Your task to perform on an android device: Open Reddit.com Image 0: 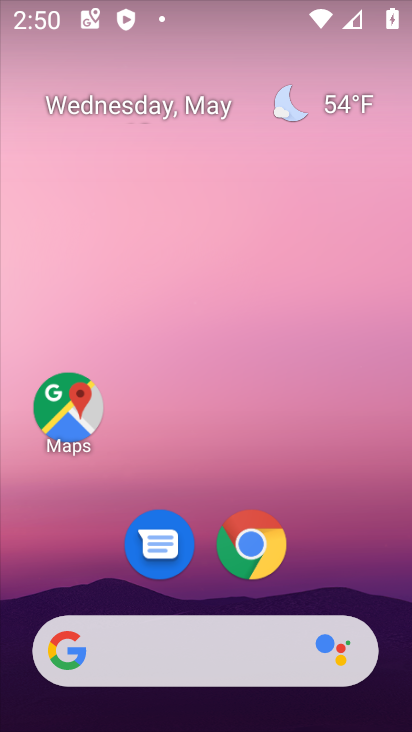
Step 0: click (269, 556)
Your task to perform on an android device: Open Reddit.com Image 1: 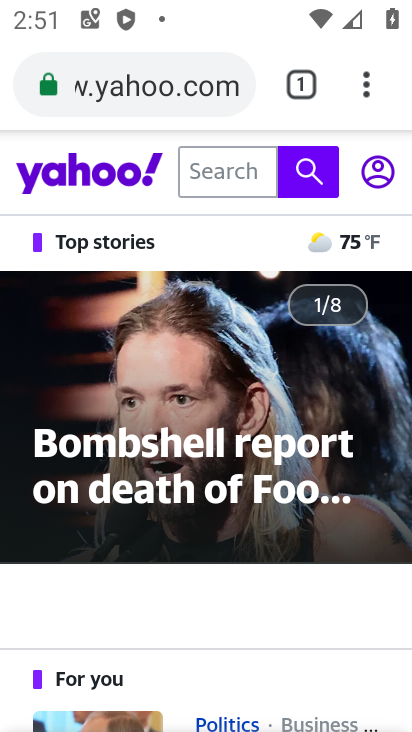
Step 1: click (181, 101)
Your task to perform on an android device: Open Reddit.com Image 2: 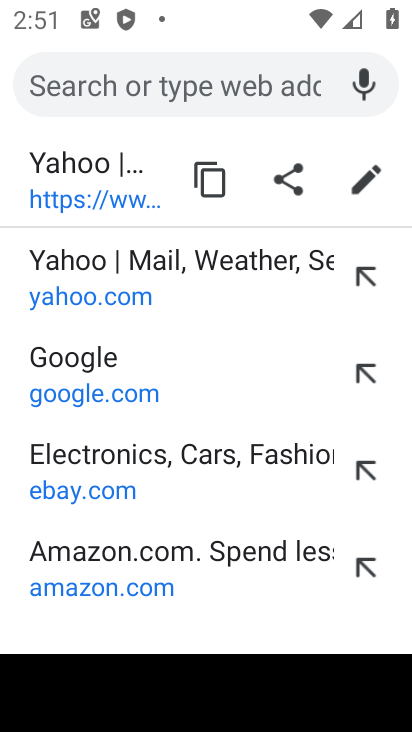
Step 2: type "reddit"
Your task to perform on an android device: Open Reddit.com Image 3: 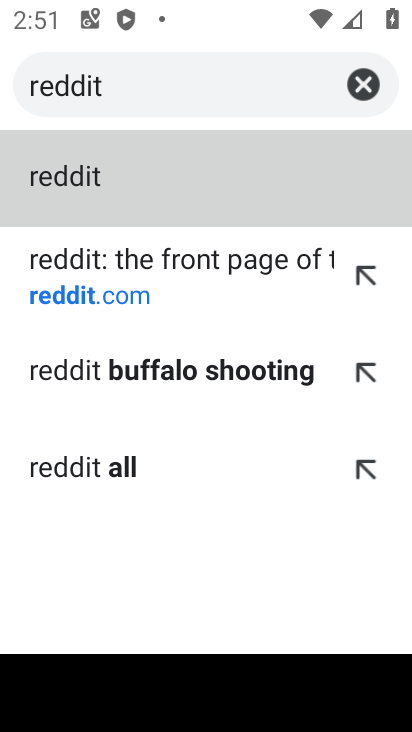
Step 3: click (59, 316)
Your task to perform on an android device: Open Reddit.com Image 4: 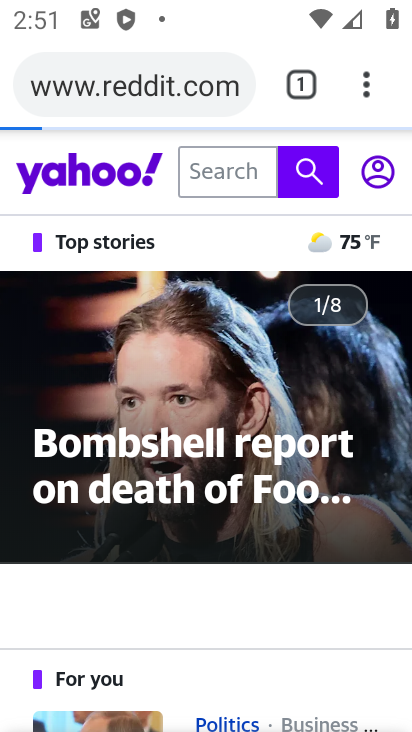
Step 4: task complete